Your task to perform on an android device: turn off location history Image 0: 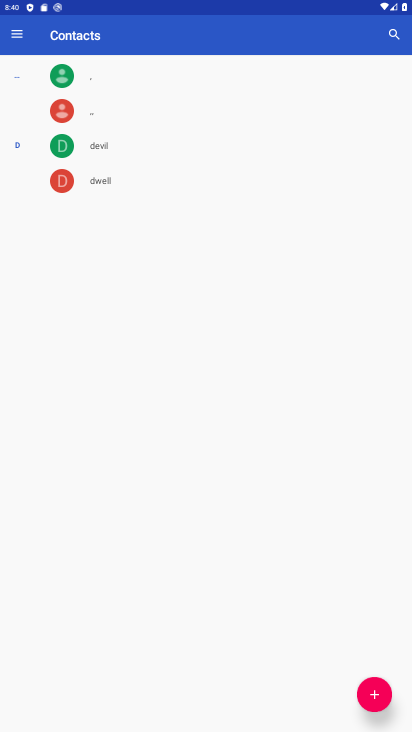
Step 0: press home button
Your task to perform on an android device: turn off location history Image 1: 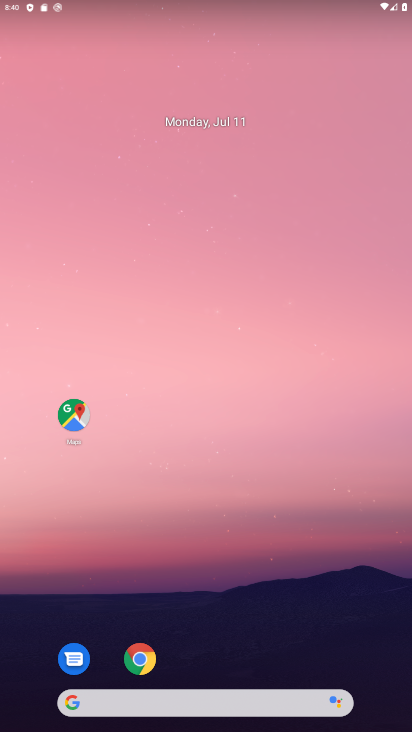
Step 1: drag from (144, 571) to (402, 77)
Your task to perform on an android device: turn off location history Image 2: 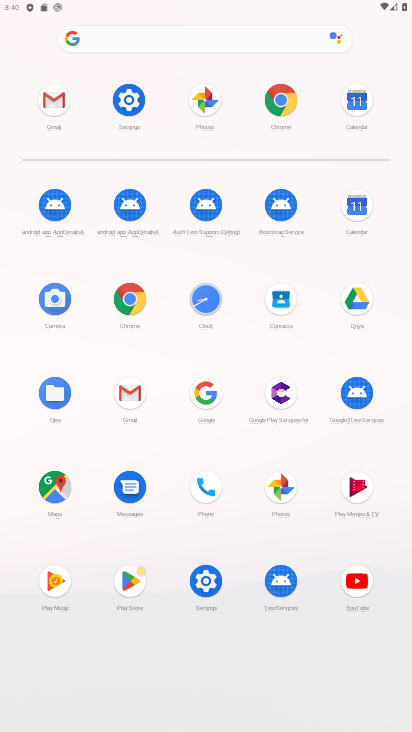
Step 2: click (209, 587)
Your task to perform on an android device: turn off location history Image 3: 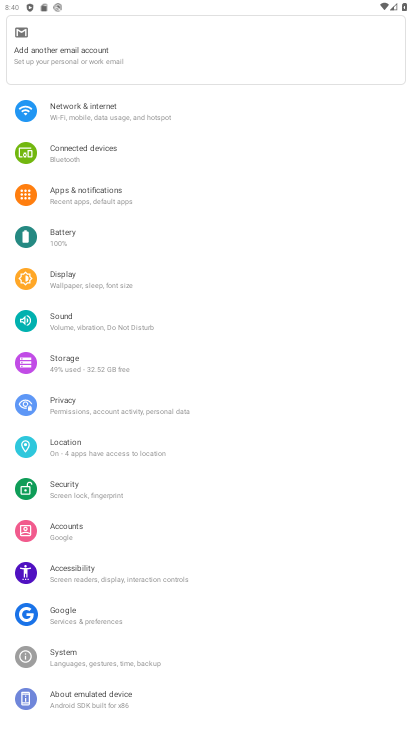
Step 3: click (58, 442)
Your task to perform on an android device: turn off location history Image 4: 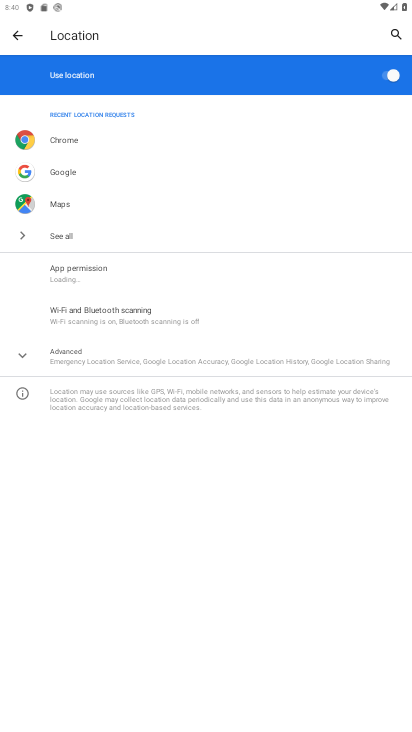
Step 4: click (89, 357)
Your task to perform on an android device: turn off location history Image 5: 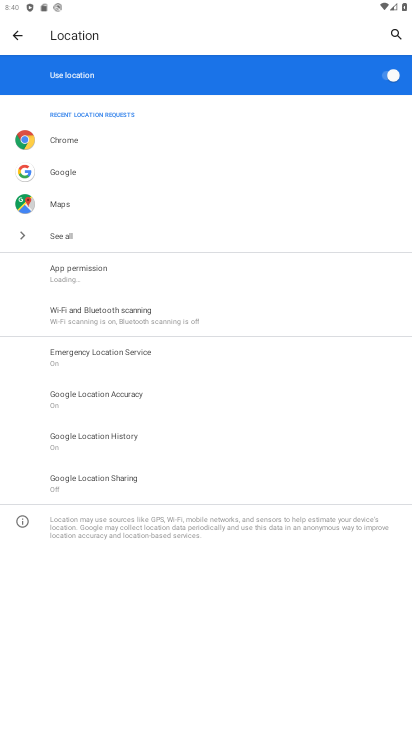
Step 5: click (96, 441)
Your task to perform on an android device: turn off location history Image 6: 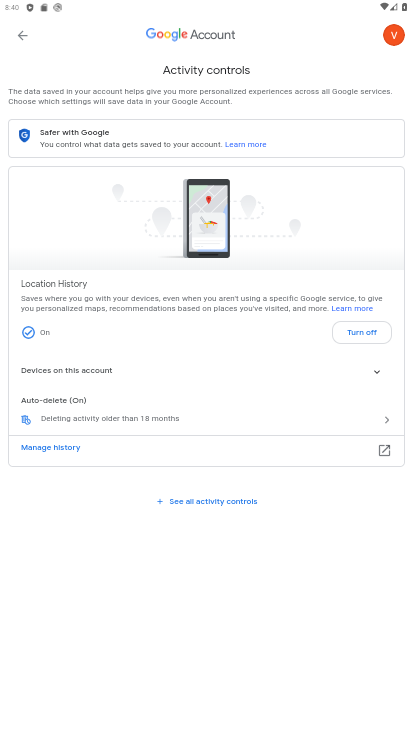
Step 6: task complete